Your task to perform on an android device: set an alarm Image 0: 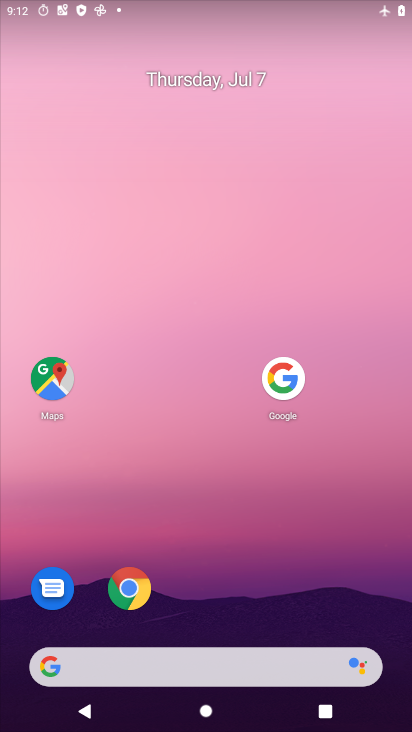
Step 0: drag from (191, 661) to (290, 26)
Your task to perform on an android device: set an alarm Image 1: 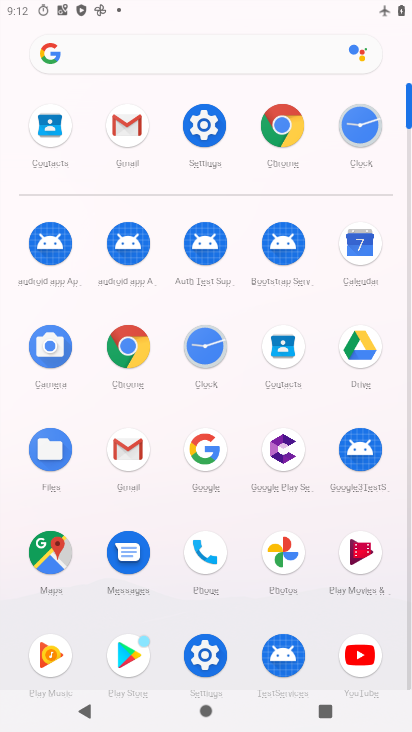
Step 1: click (200, 356)
Your task to perform on an android device: set an alarm Image 2: 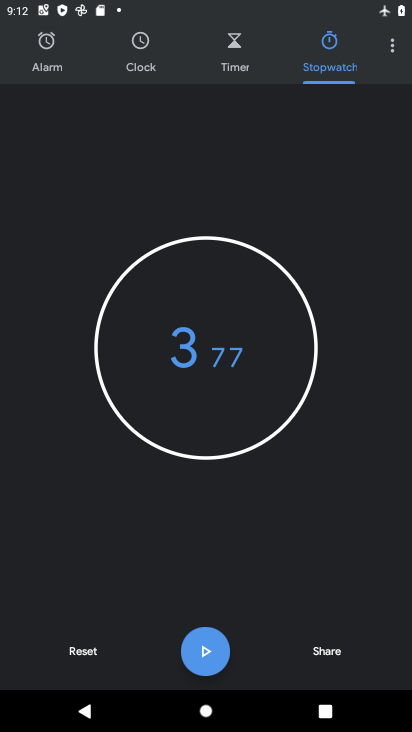
Step 2: click (39, 52)
Your task to perform on an android device: set an alarm Image 3: 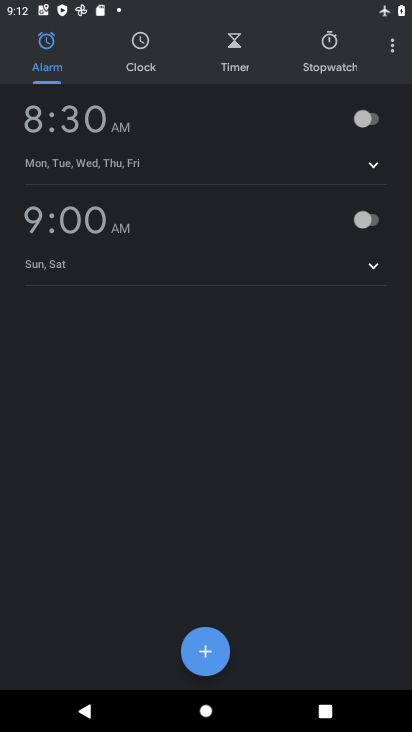
Step 3: click (371, 124)
Your task to perform on an android device: set an alarm Image 4: 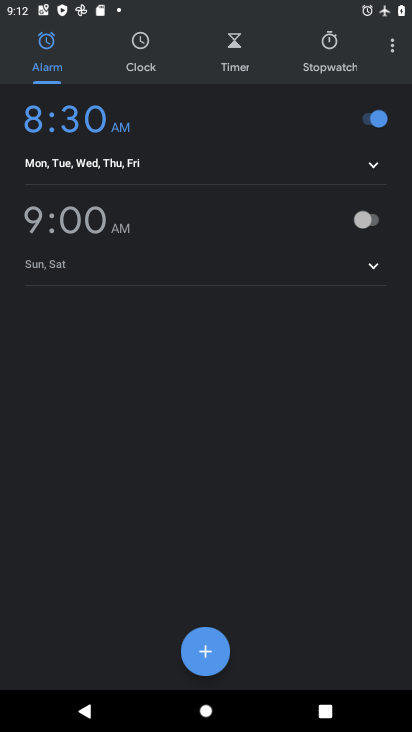
Step 4: task complete